Your task to perform on an android device: Open ESPN.com Image 0: 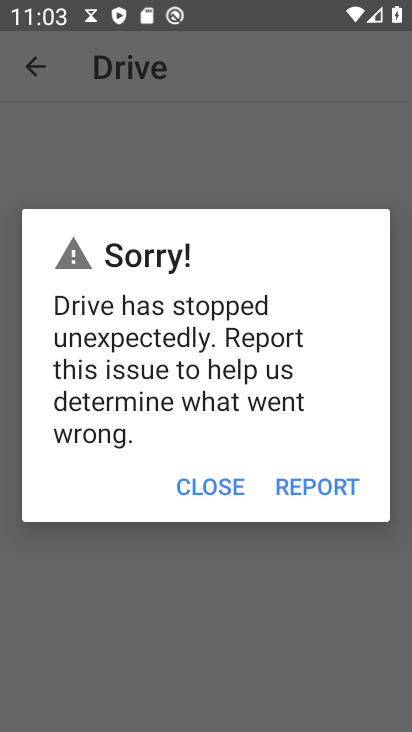
Step 0: press home button
Your task to perform on an android device: Open ESPN.com Image 1: 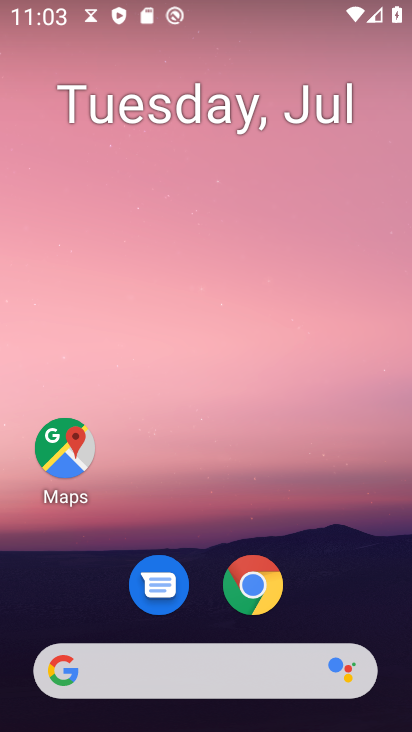
Step 1: click (269, 589)
Your task to perform on an android device: Open ESPN.com Image 2: 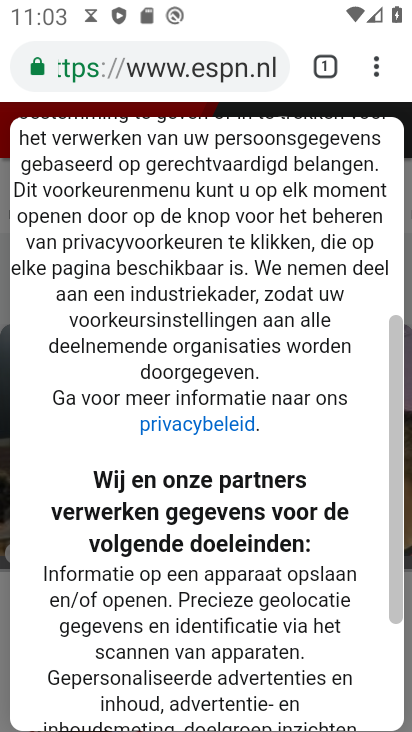
Step 2: click (212, 78)
Your task to perform on an android device: Open ESPN.com Image 3: 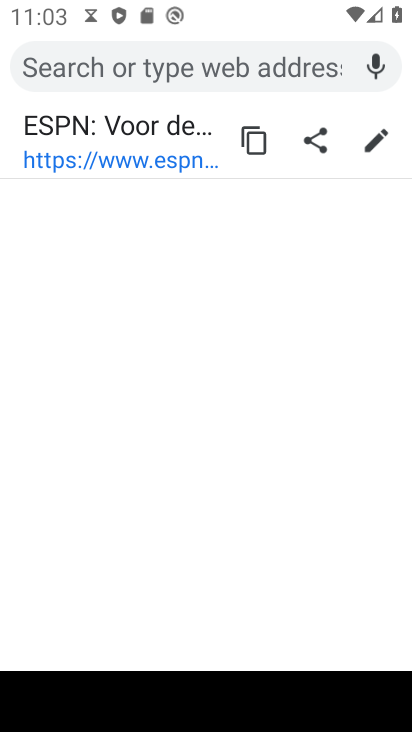
Step 3: click (176, 133)
Your task to perform on an android device: Open ESPN.com Image 4: 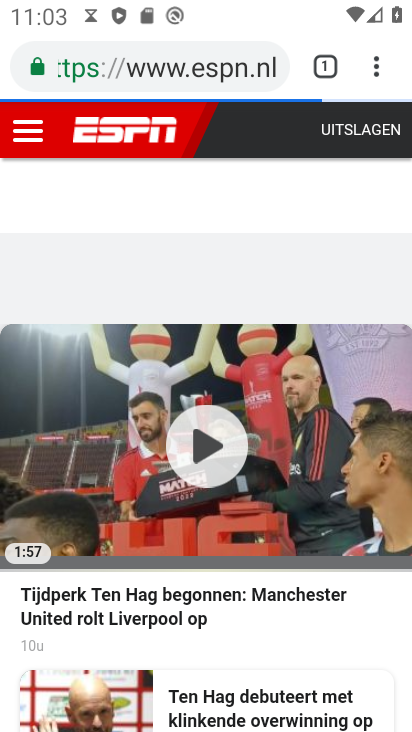
Step 4: task complete